Your task to perform on an android device: open app "Adobe Acrobat Reader" Image 0: 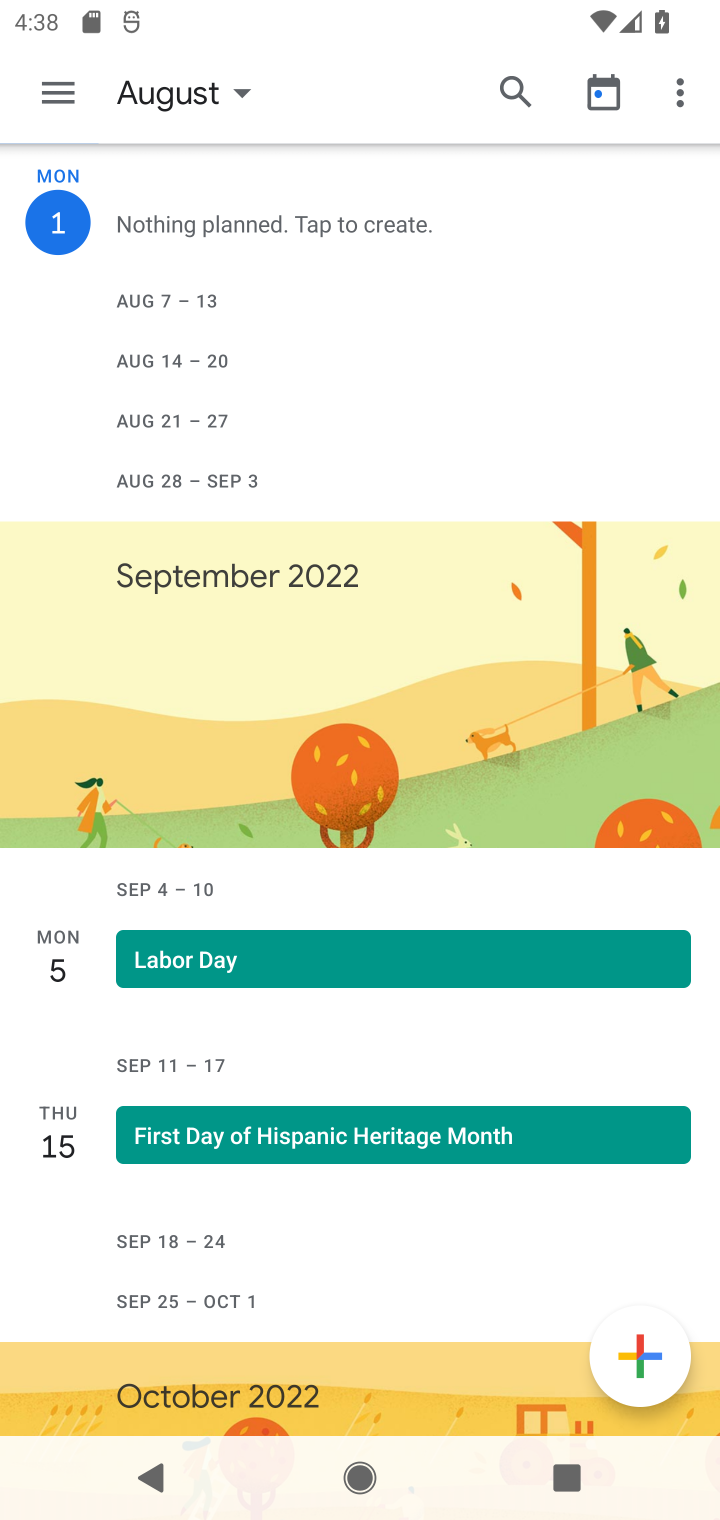
Step 0: press home button
Your task to perform on an android device: open app "Adobe Acrobat Reader" Image 1: 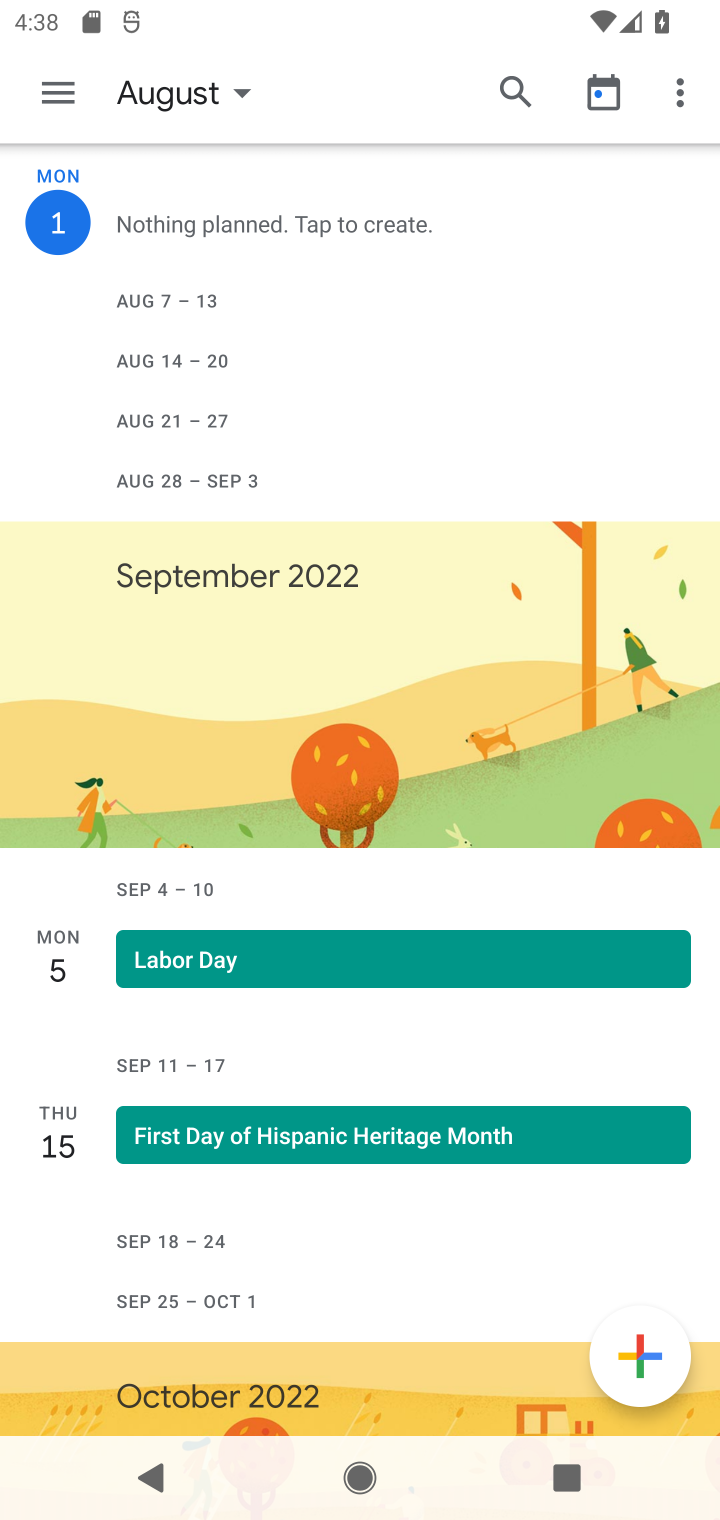
Step 1: press home button
Your task to perform on an android device: open app "Adobe Acrobat Reader" Image 2: 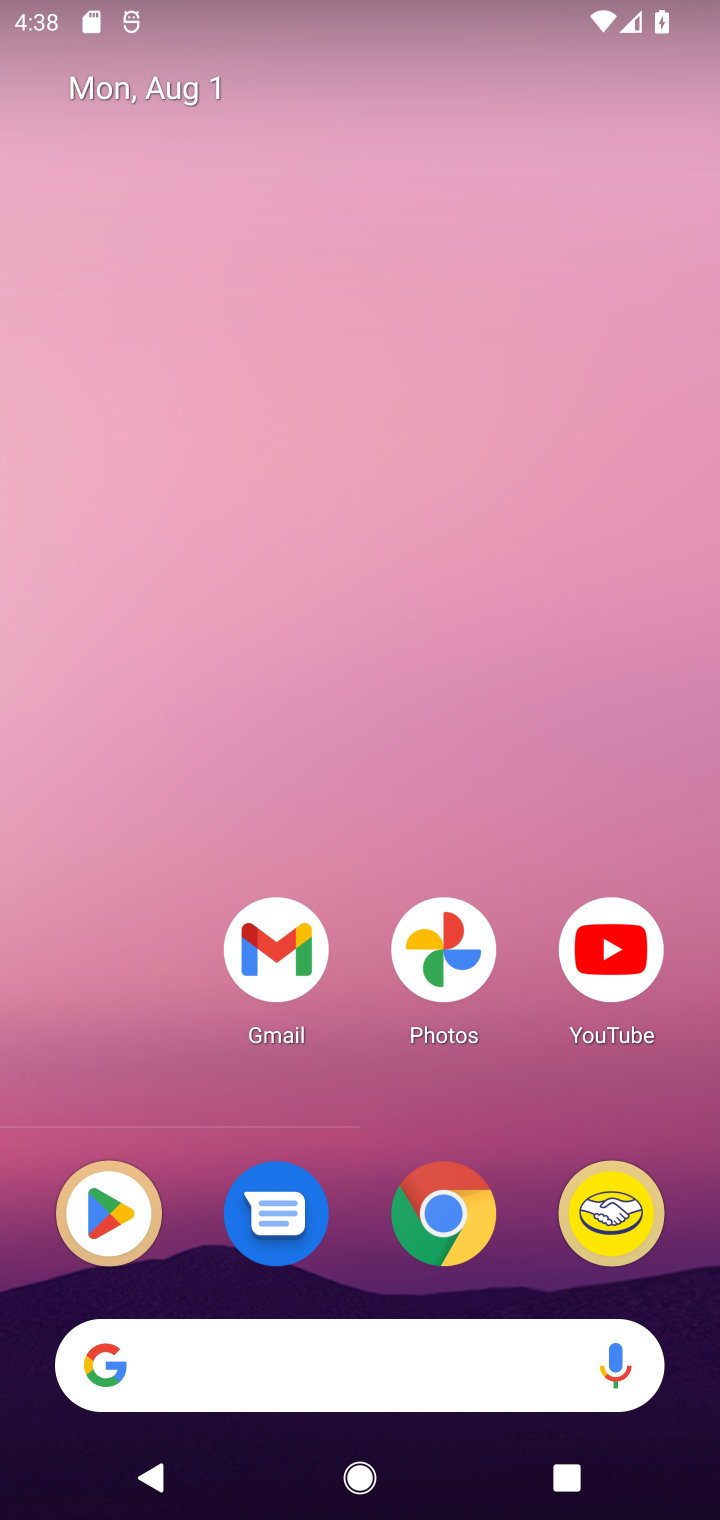
Step 2: drag from (511, 1115) to (668, 104)
Your task to perform on an android device: open app "Adobe Acrobat Reader" Image 3: 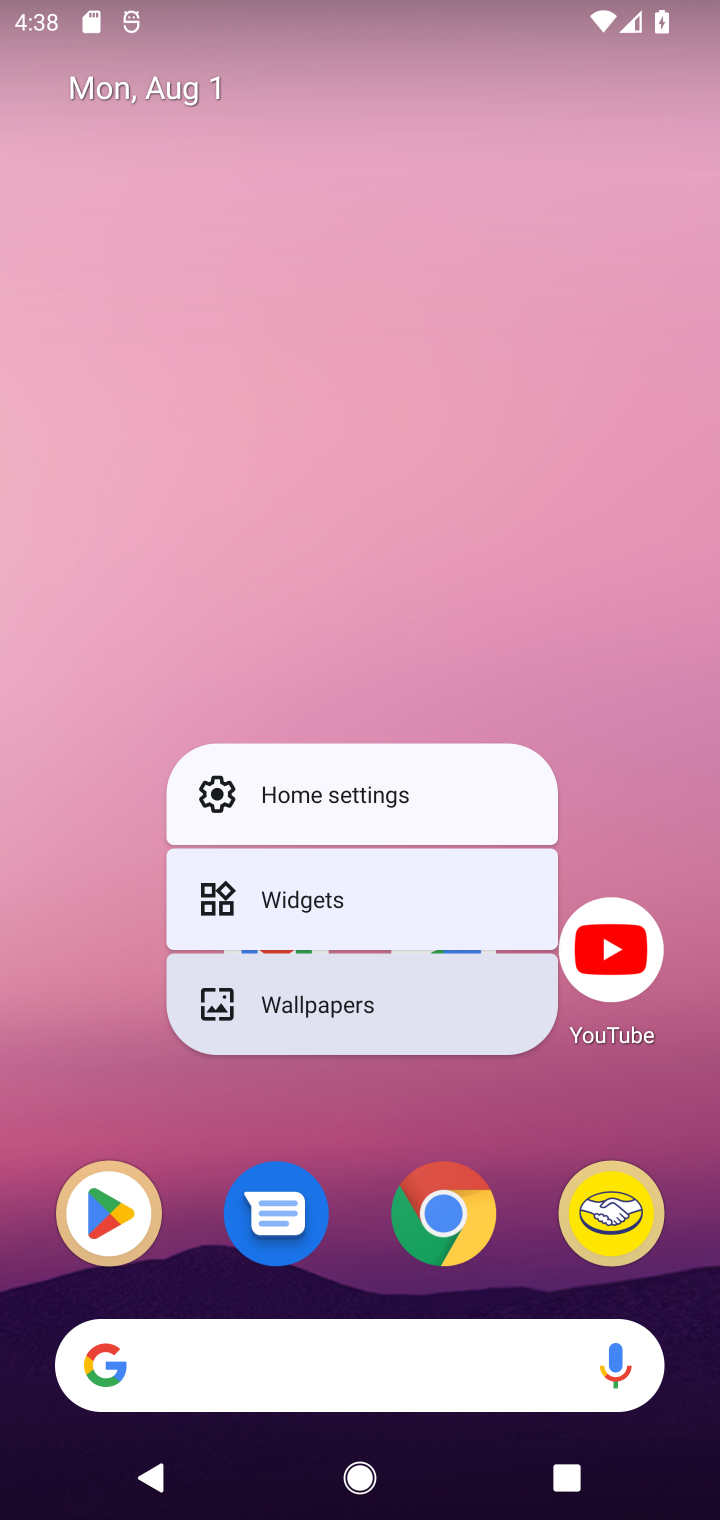
Step 3: click (597, 397)
Your task to perform on an android device: open app "Adobe Acrobat Reader" Image 4: 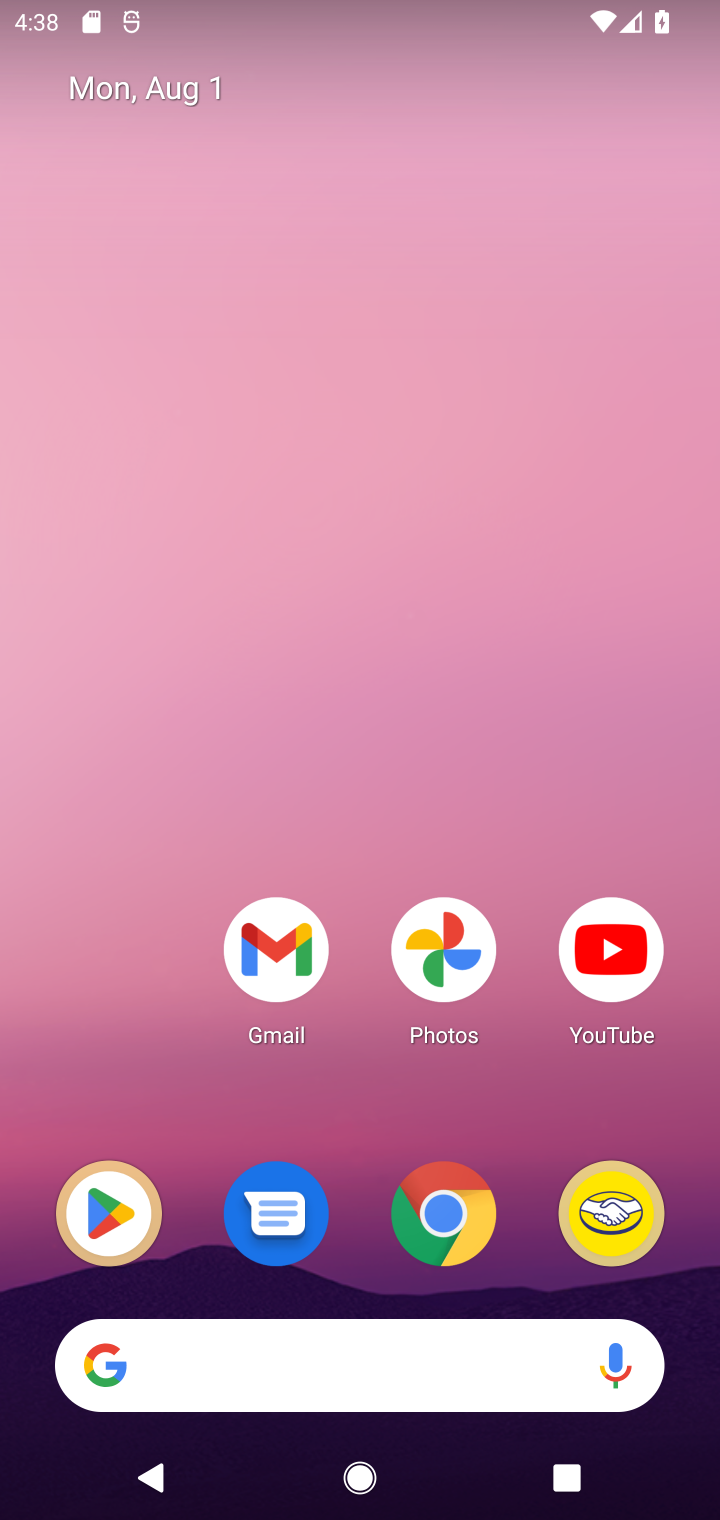
Step 4: drag from (530, 1045) to (598, 142)
Your task to perform on an android device: open app "Adobe Acrobat Reader" Image 5: 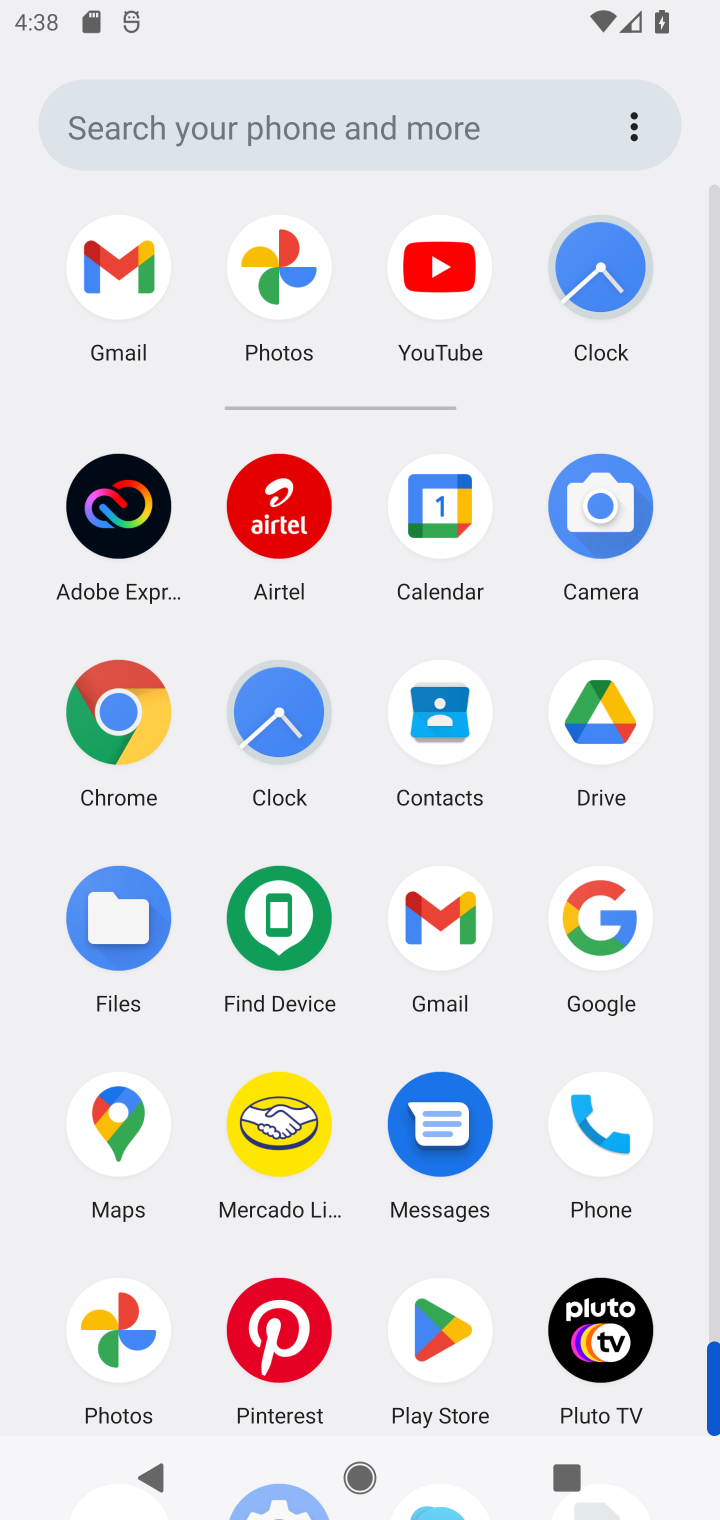
Step 5: click (470, 1301)
Your task to perform on an android device: open app "Adobe Acrobat Reader" Image 6: 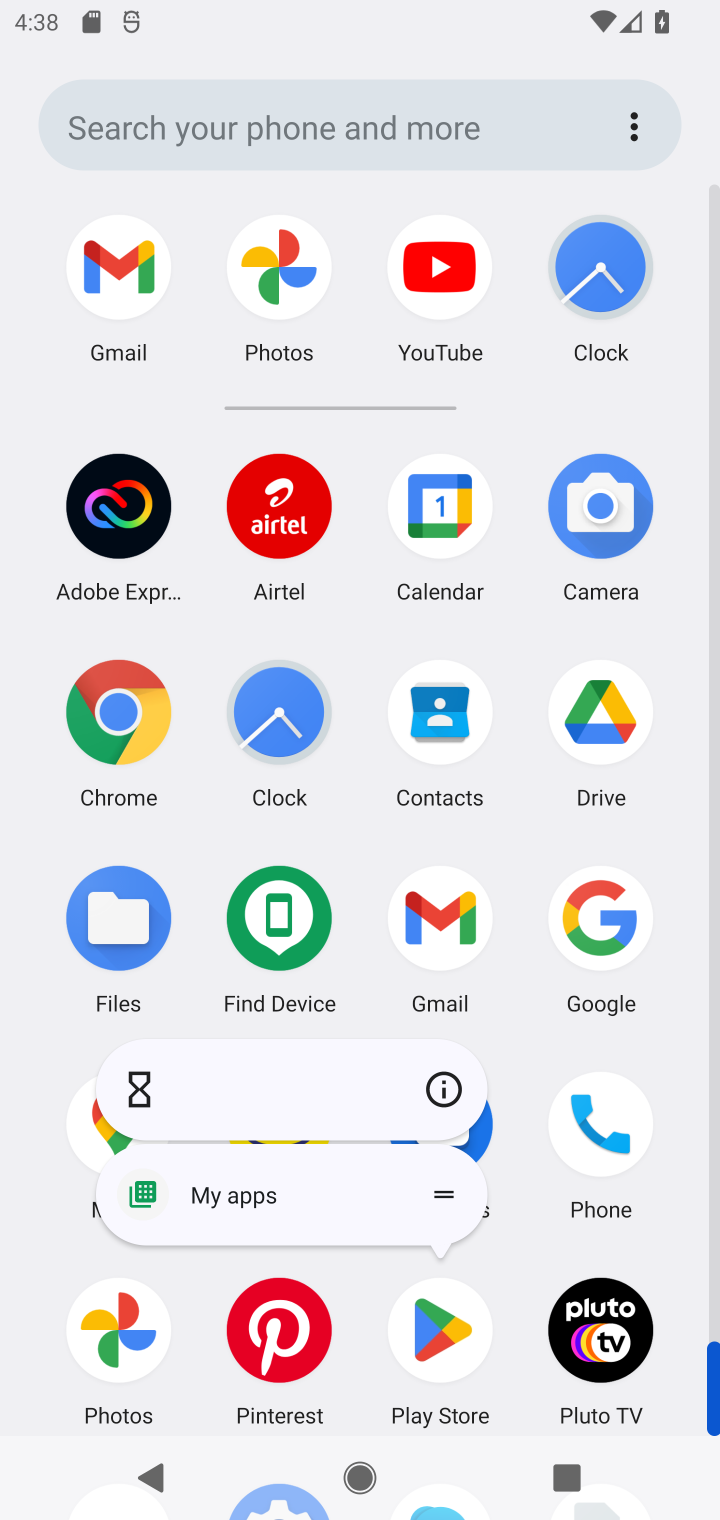
Step 6: click (463, 1328)
Your task to perform on an android device: open app "Adobe Acrobat Reader" Image 7: 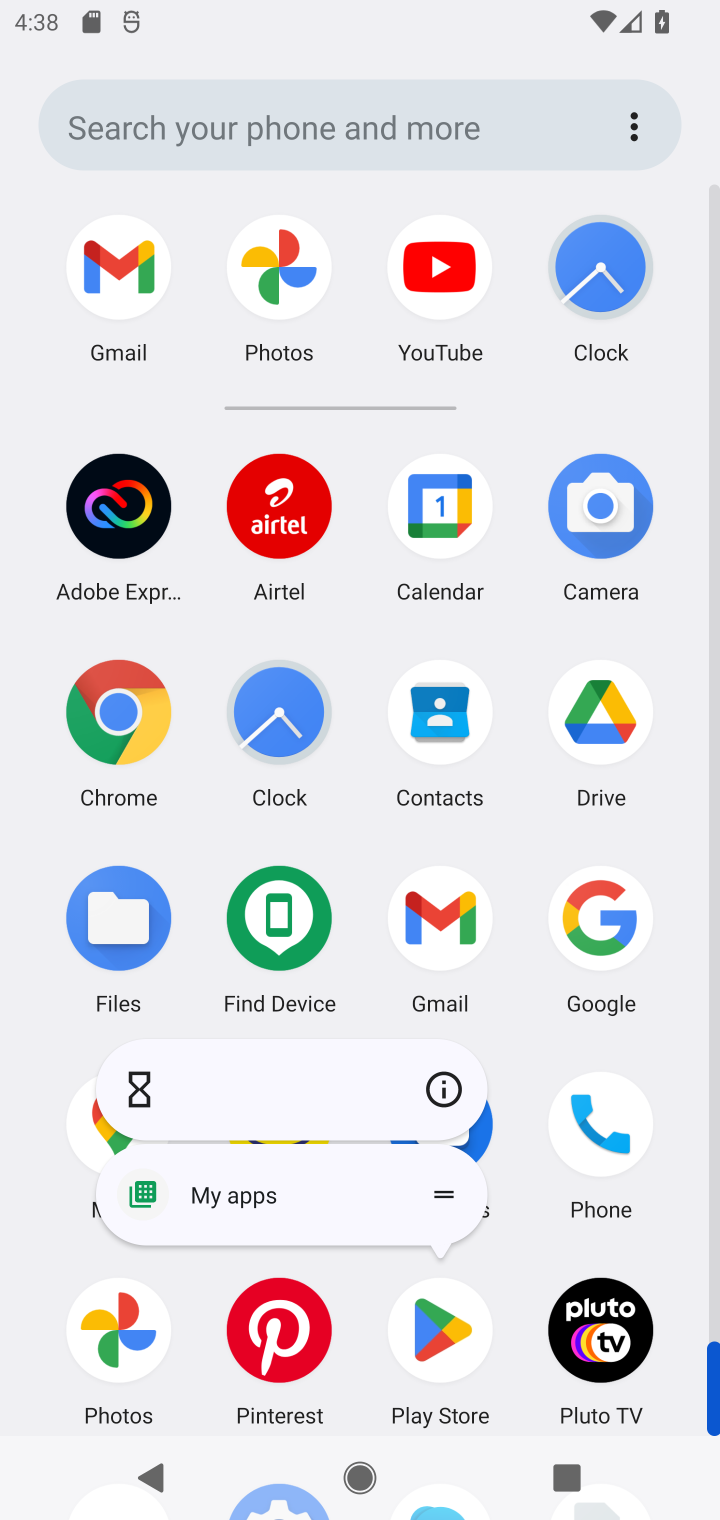
Step 7: click (443, 1335)
Your task to perform on an android device: open app "Adobe Acrobat Reader" Image 8: 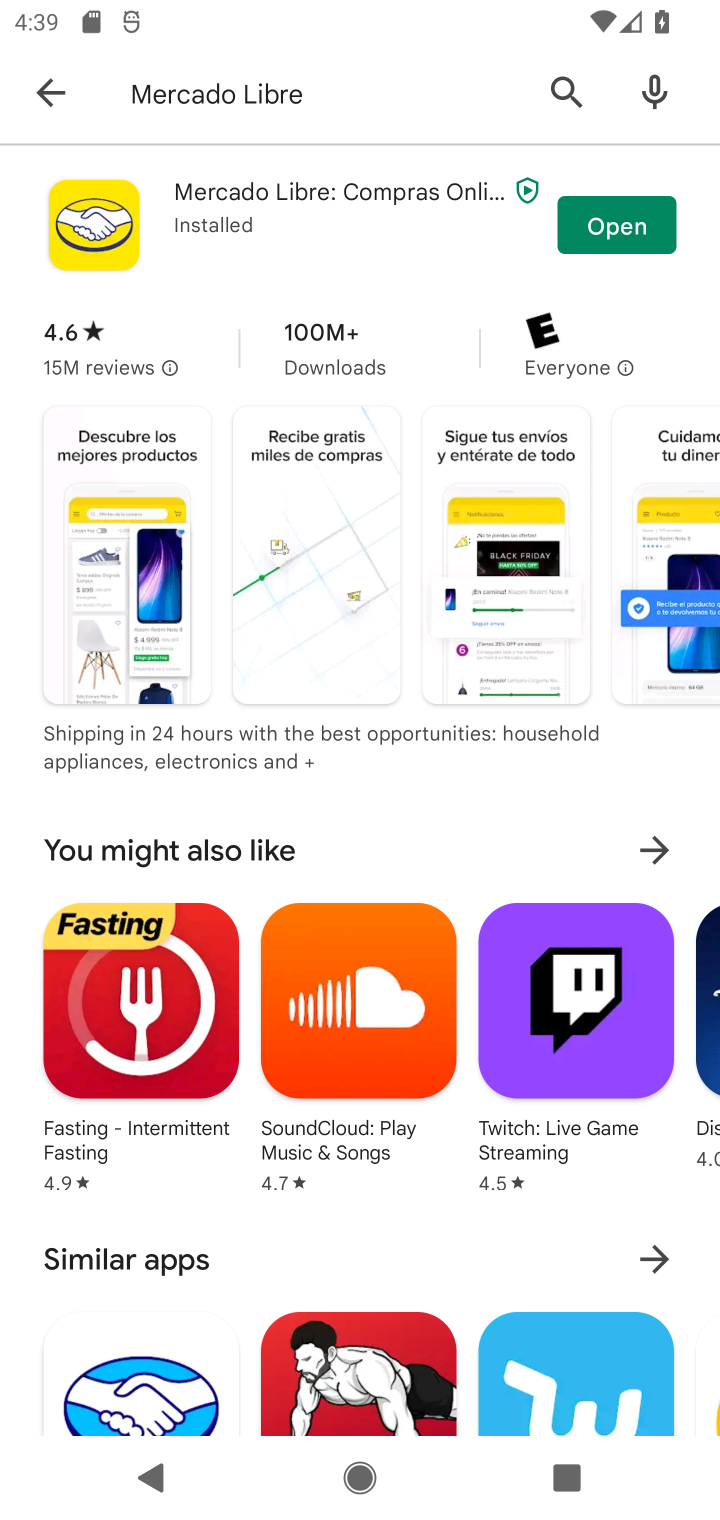
Step 8: click (445, 92)
Your task to perform on an android device: open app "Adobe Acrobat Reader" Image 9: 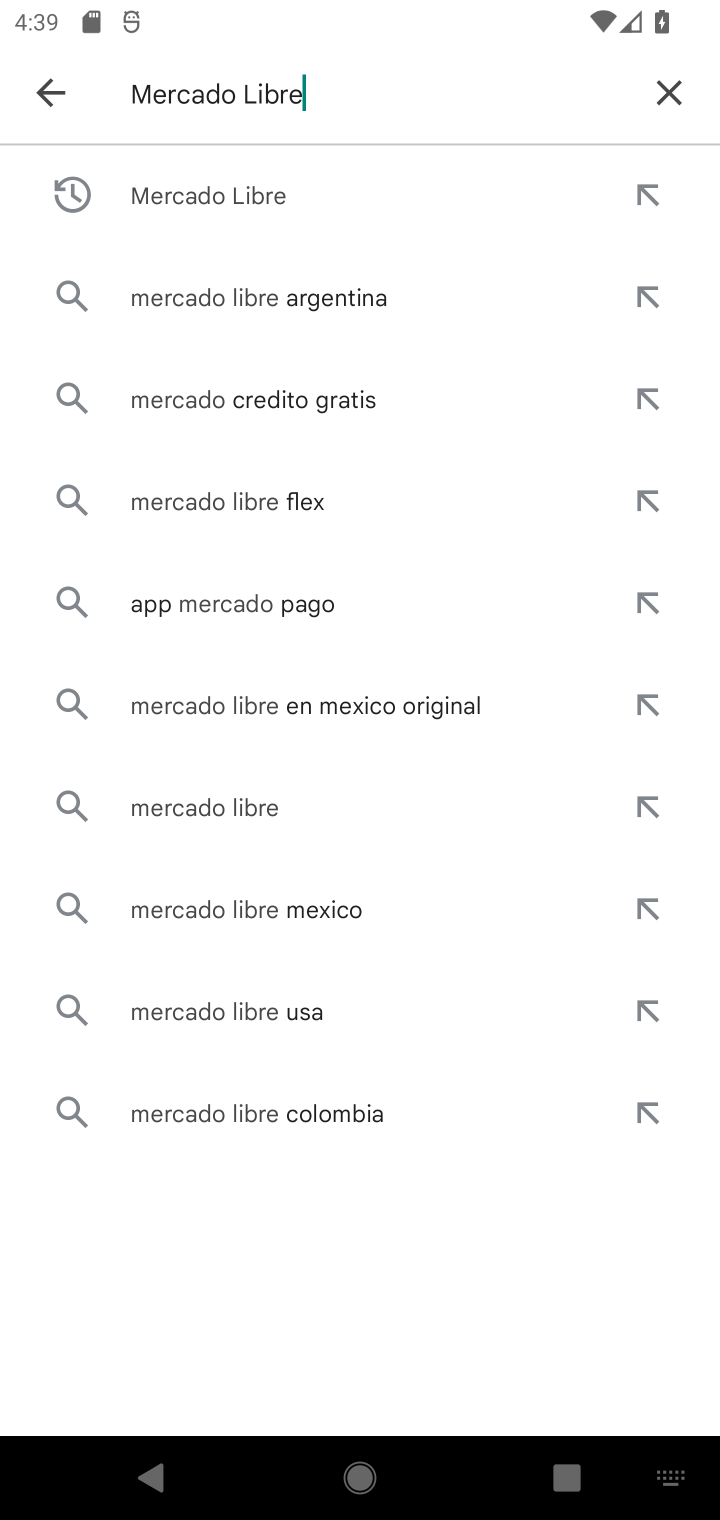
Step 9: click (664, 88)
Your task to perform on an android device: open app "Adobe Acrobat Reader" Image 10: 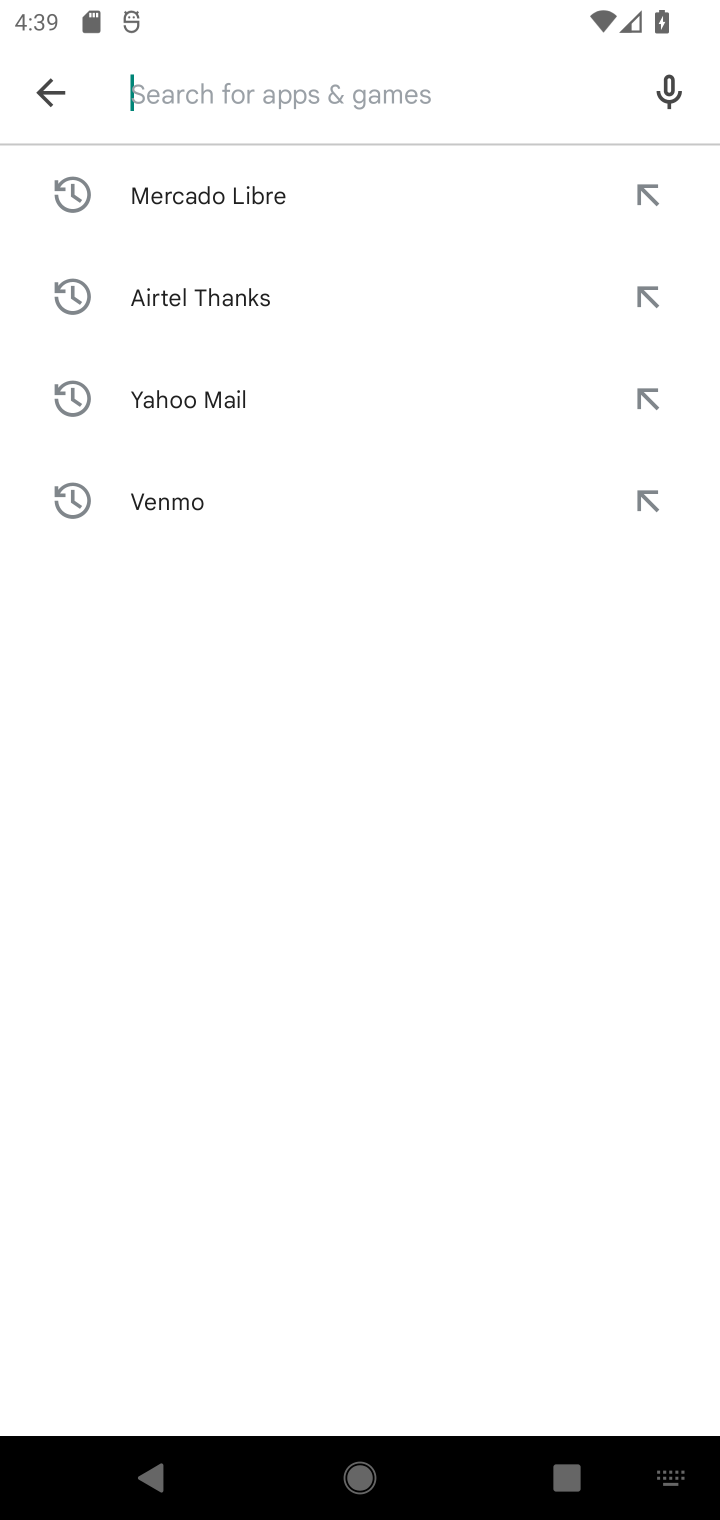
Step 10: type "Adobe Acrobat Reader"
Your task to perform on an android device: open app "Adobe Acrobat Reader" Image 11: 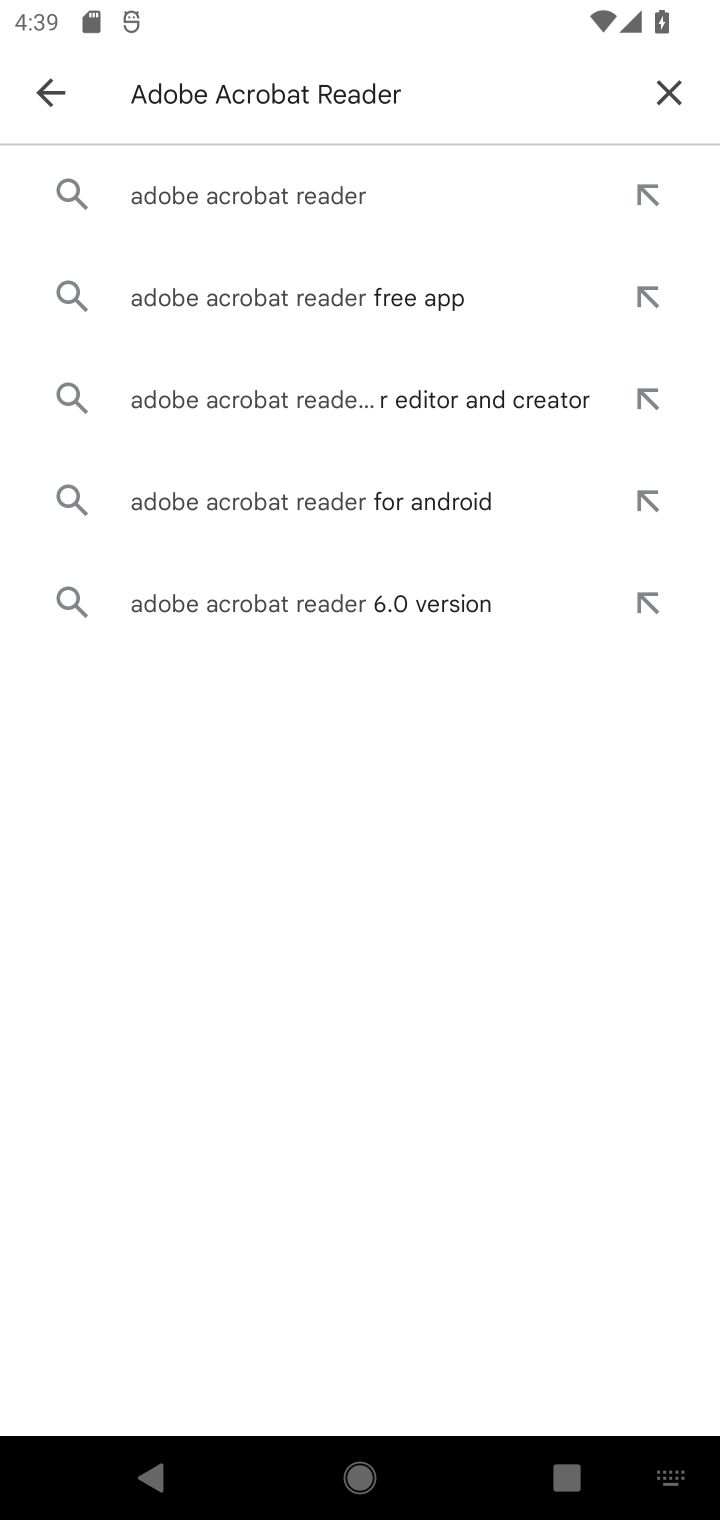
Step 11: press enter
Your task to perform on an android device: open app "Adobe Acrobat Reader" Image 12: 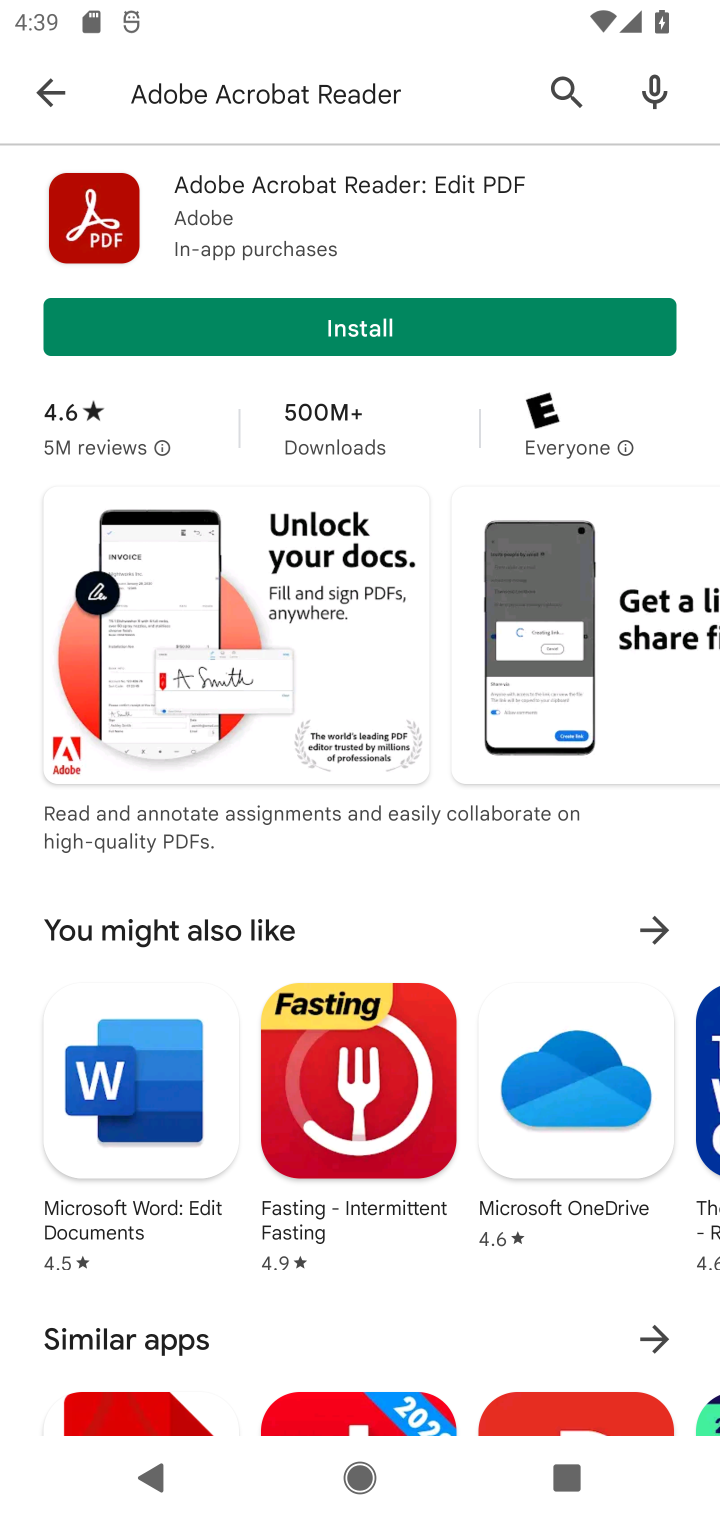
Step 12: task complete